Your task to perform on an android device: Clear all items from cart on walmart. Search for "macbook pro 15 inch" on walmart, select the first entry, and add it to the cart. Image 0: 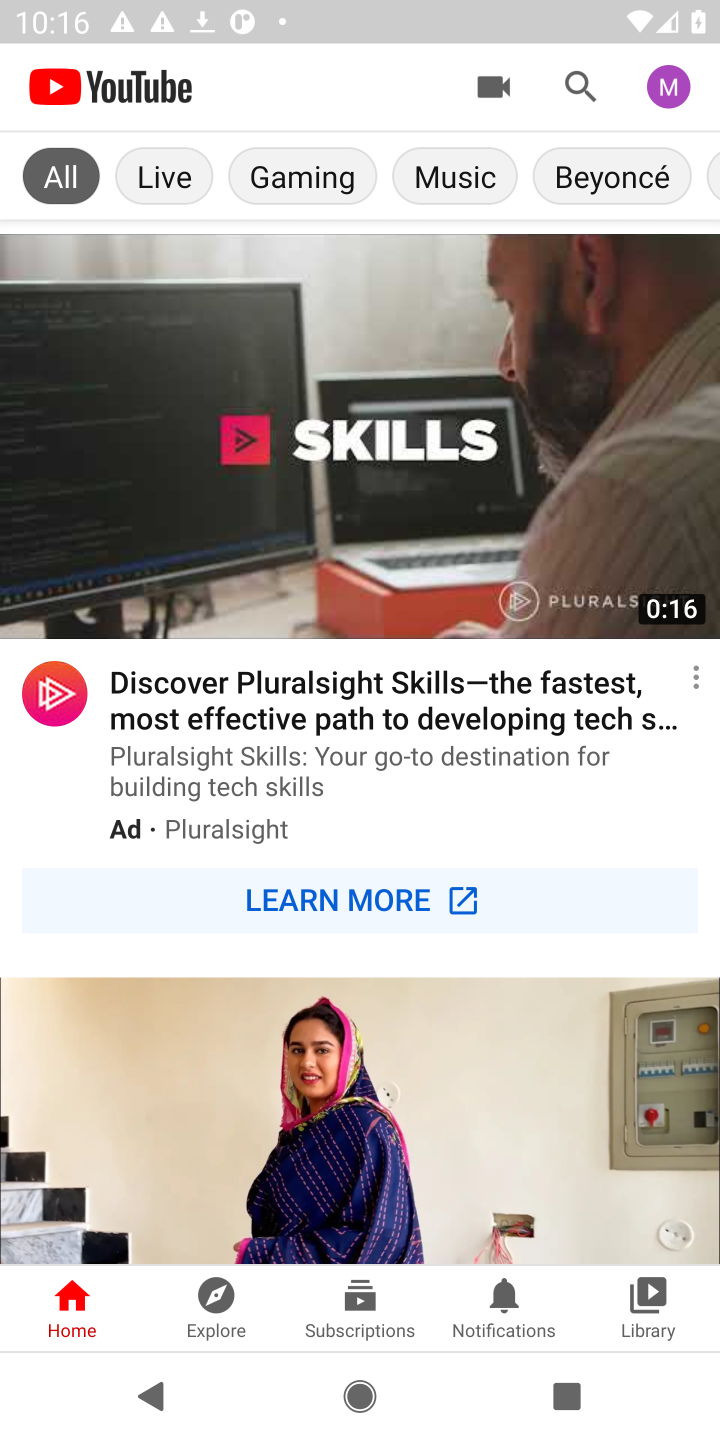
Step 0: press home button
Your task to perform on an android device: Clear all items from cart on walmart. Search for "macbook pro 15 inch" on walmart, select the first entry, and add it to the cart. Image 1: 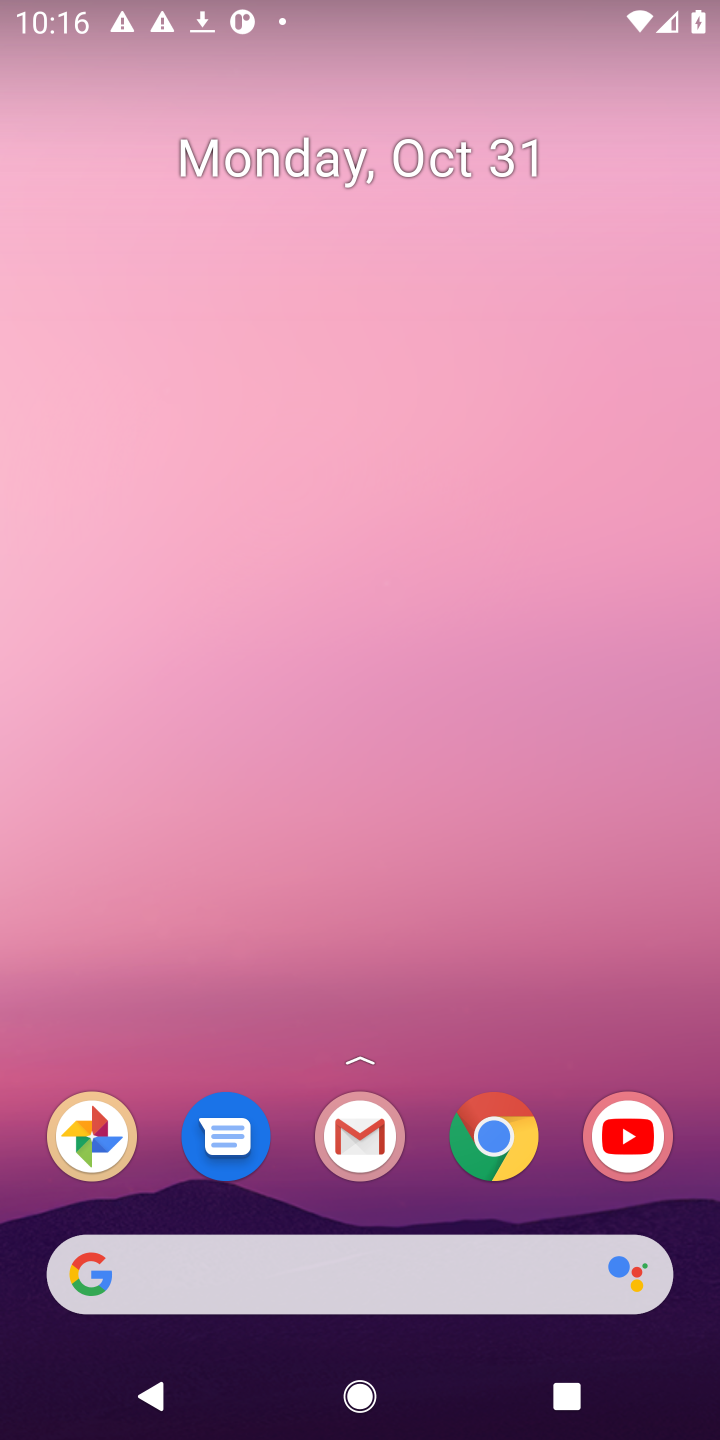
Step 1: click (150, 1278)
Your task to perform on an android device: Clear all items from cart on walmart. Search for "macbook pro 15 inch" on walmart, select the first entry, and add it to the cart. Image 2: 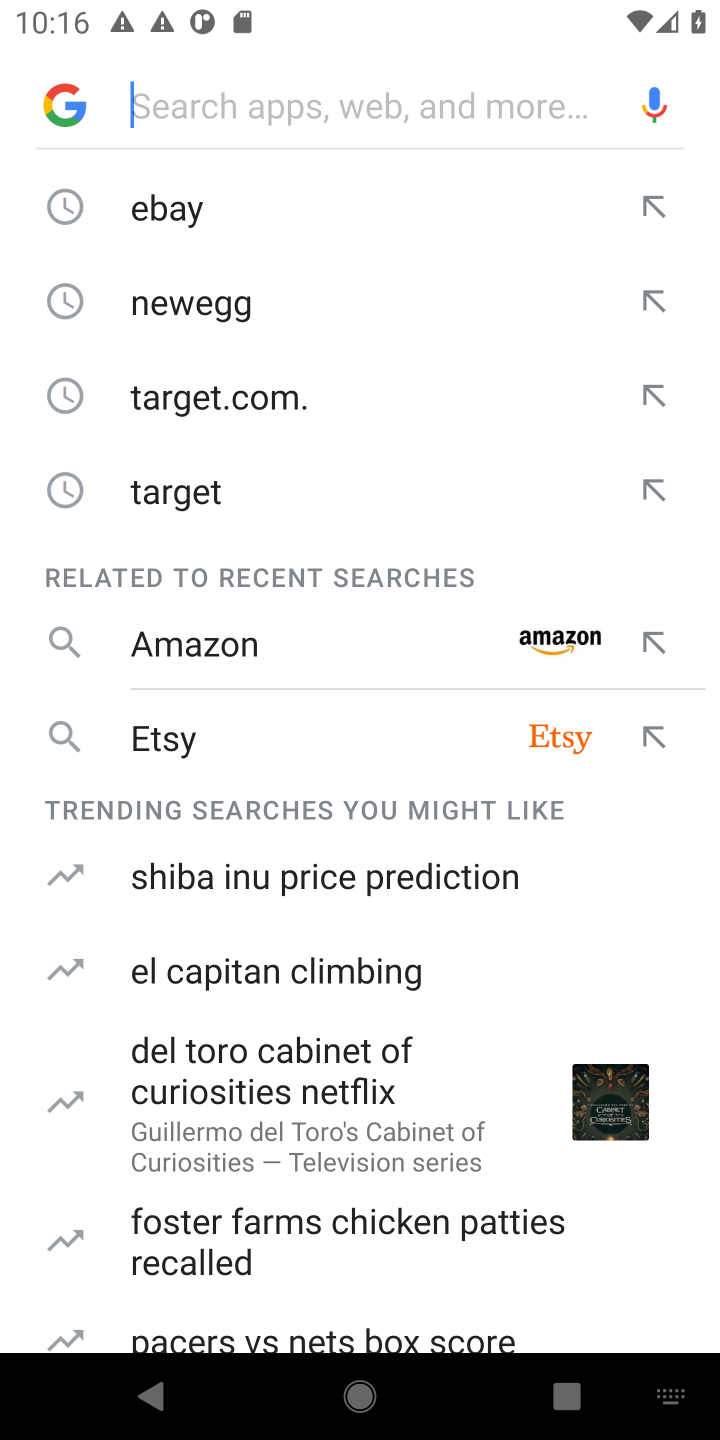
Step 2: type "walmart"
Your task to perform on an android device: Clear all items from cart on walmart. Search for "macbook pro 15 inch" on walmart, select the first entry, and add it to the cart. Image 3: 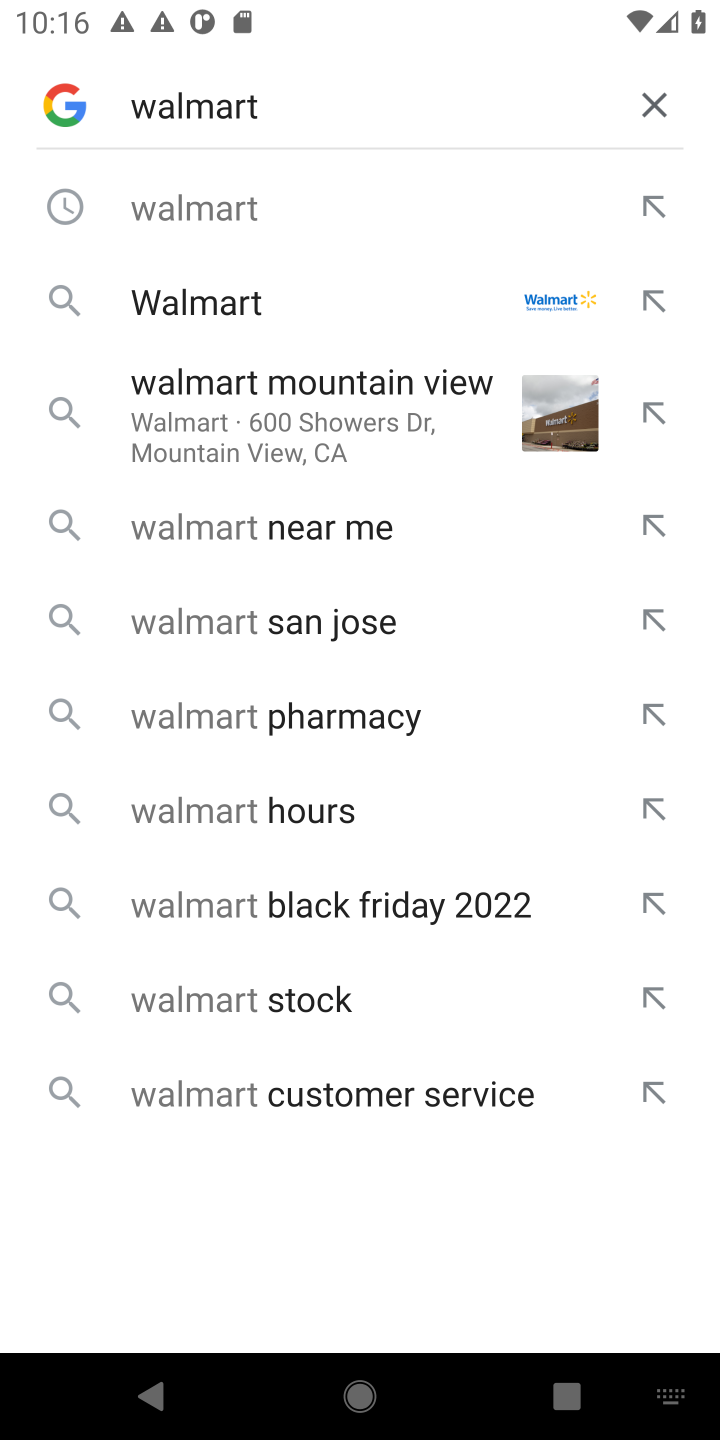
Step 3: press enter
Your task to perform on an android device: Clear all items from cart on walmart. Search for "macbook pro 15 inch" on walmart, select the first entry, and add it to the cart. Image 4: 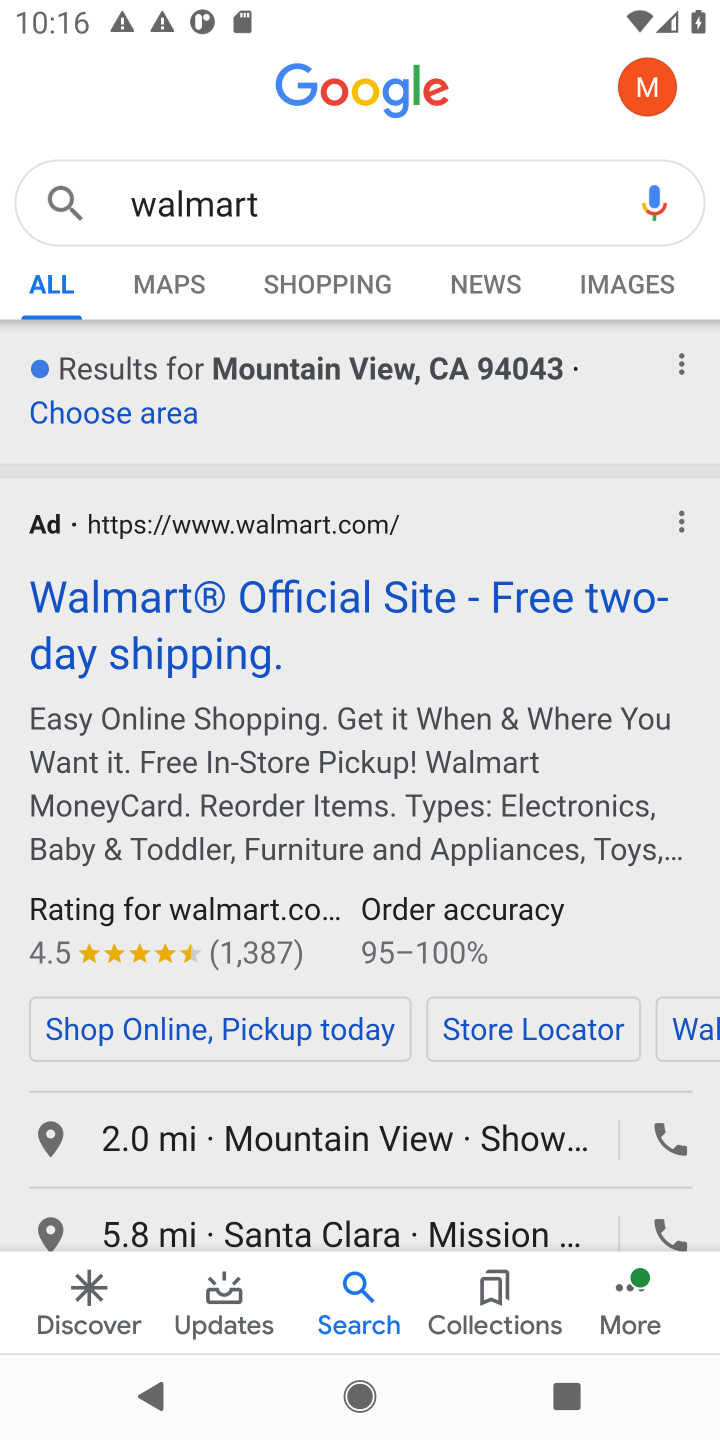
Step 4: click (345, 585)
Your task to perform on an android device: Clear all items from cart on walmart. Search for "macbook pro 15 inch" on walmart, select the first entry, and add it to the cart. Image 5: 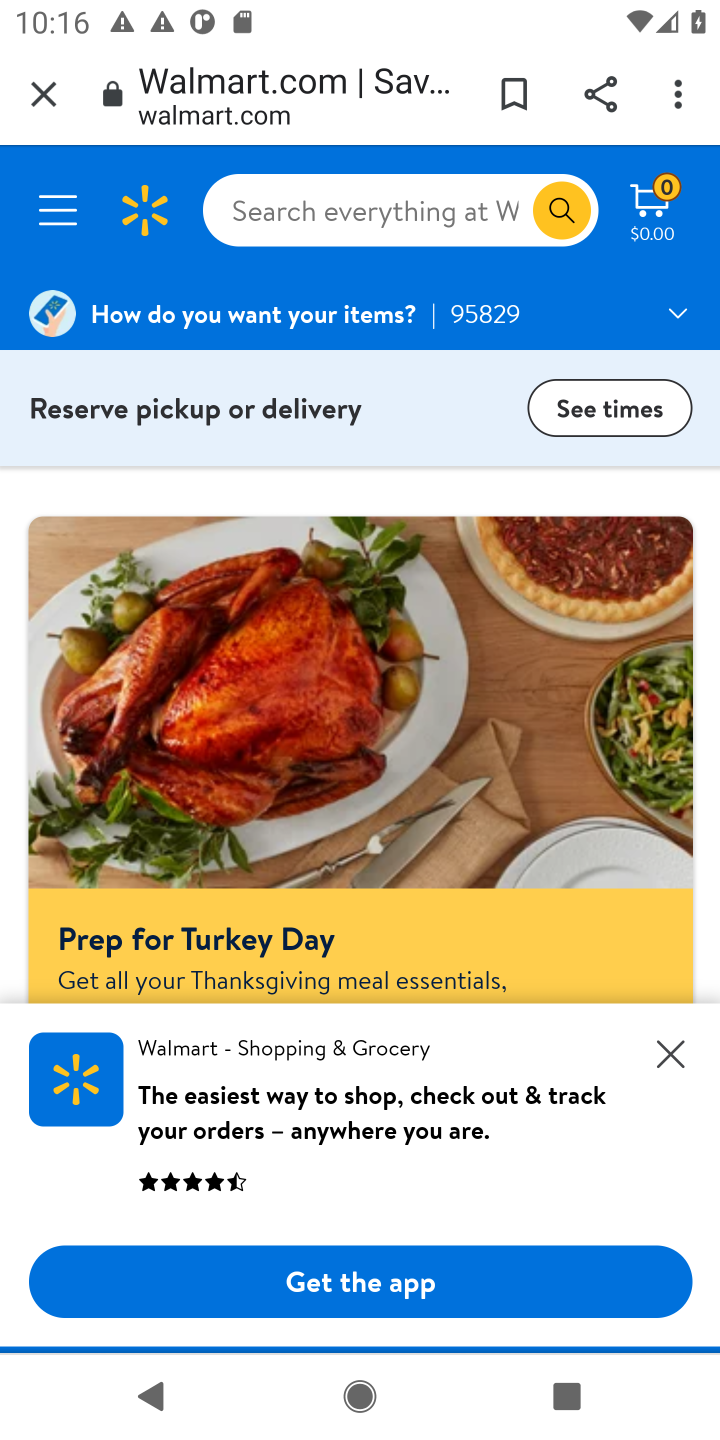
Step 5: click (655, 198)
Your task to perform on an android device: Clear all items from cart on walmart. Search for "macbook pro 15 inch" on walmart, select the first entry, and add it to the cart. Image 6: 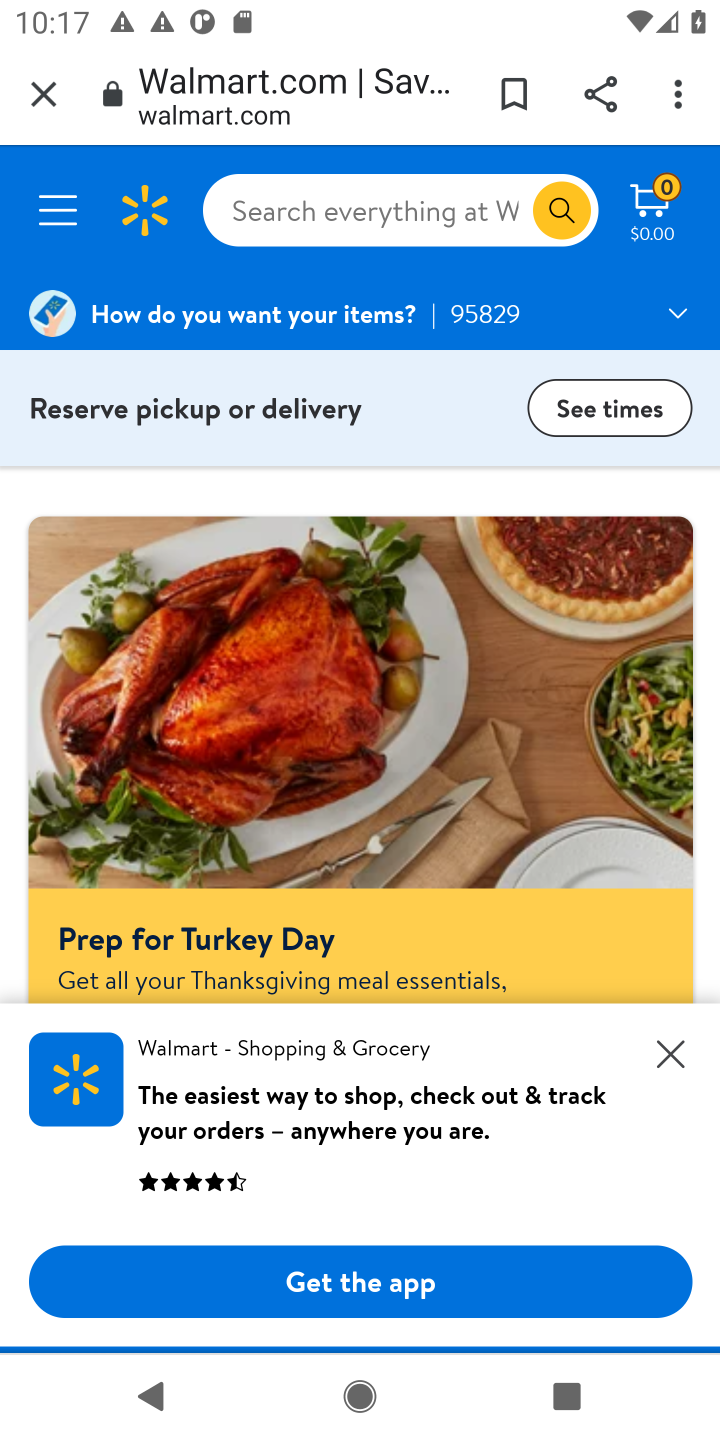
Step 6: click (655, 198)
Your task to perform on an android device: Clear all items from cart on walmart. Search for "macbook pro 15 inch" on walmart, select the first entry, and add it to the cart. Image 7: 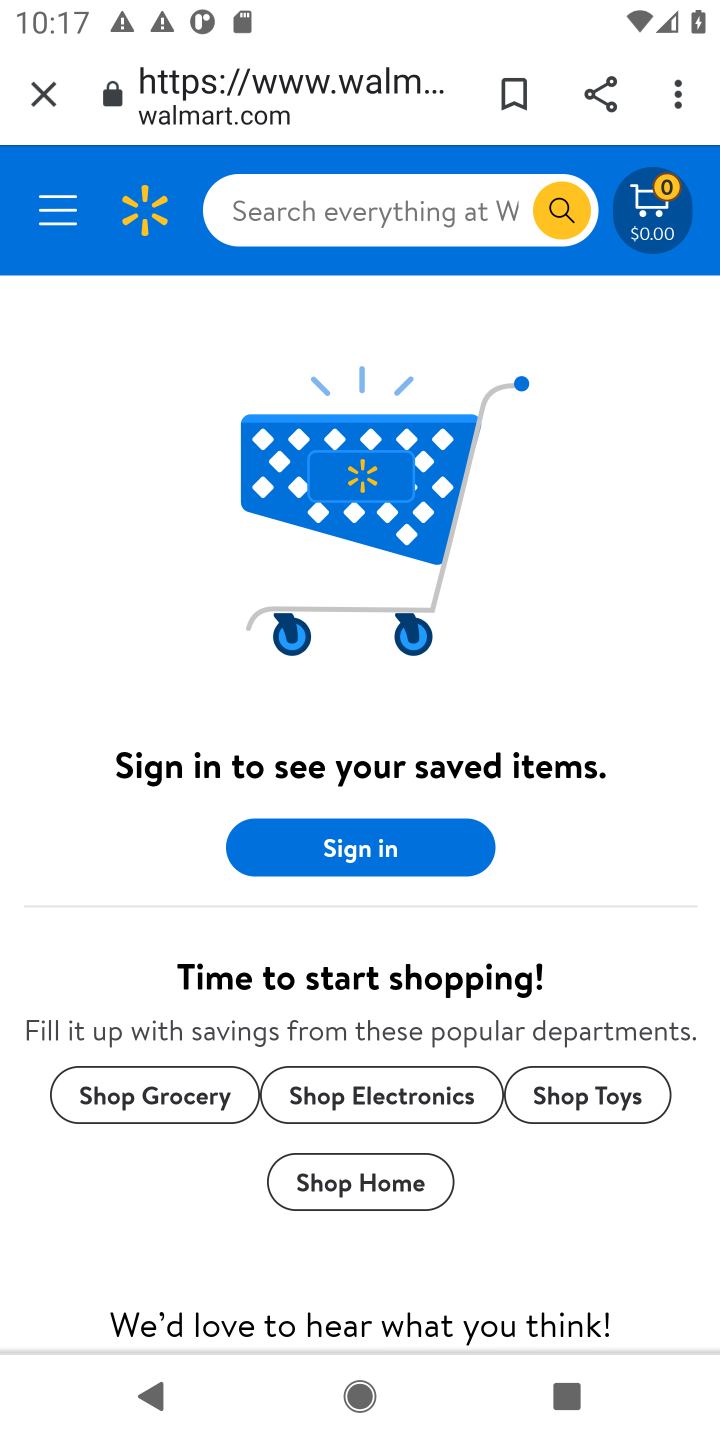
Step 7: click (302, 220)
Your task to perform on an android device: Clear all items from cart on walmart. Search for "macbook pro 15 inch" on walmart, select the first entry, and add it to the cart. Image 8: 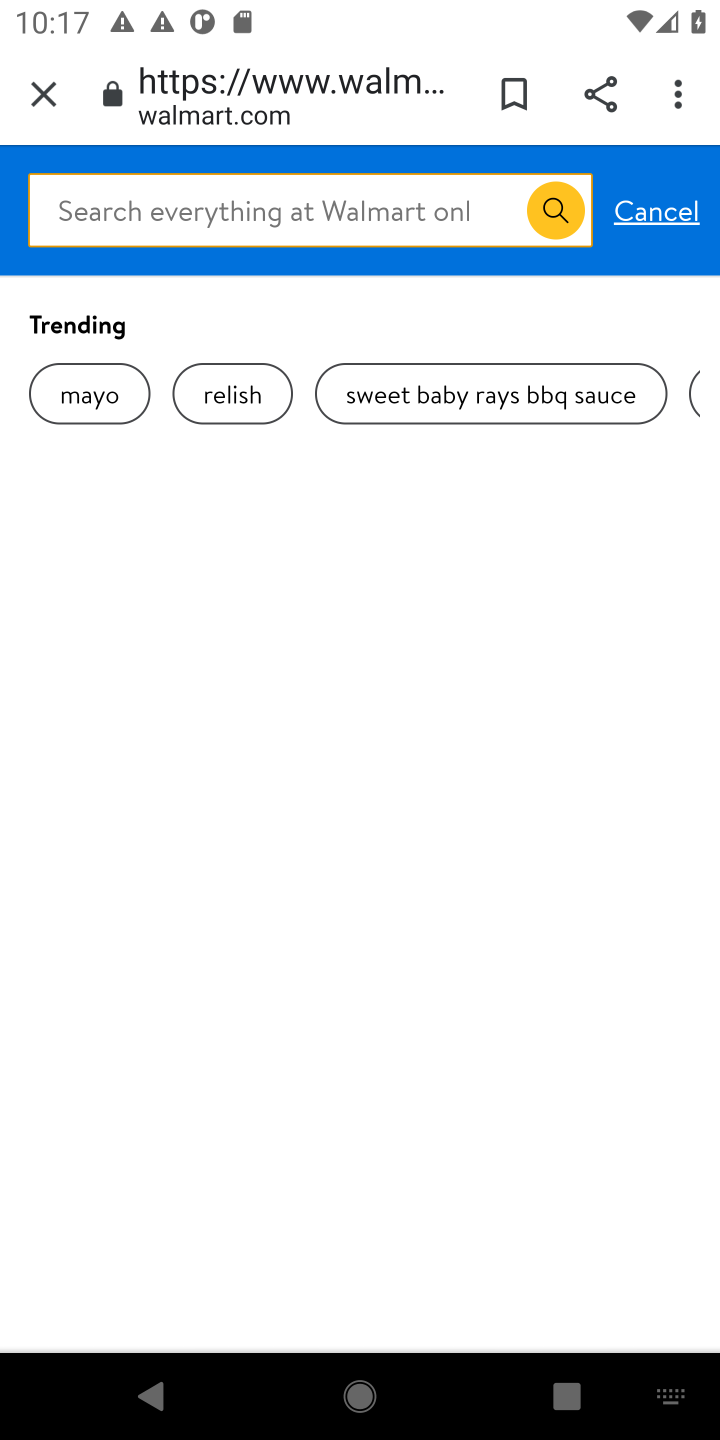
Step 8: type "macbook pro 15 inch"
Your task to perform on an android device: Clear all items from cart on walmart. Search for "macbook pro 15 inch" on walmart, select the first entry, and add it to the cart. Image 9: 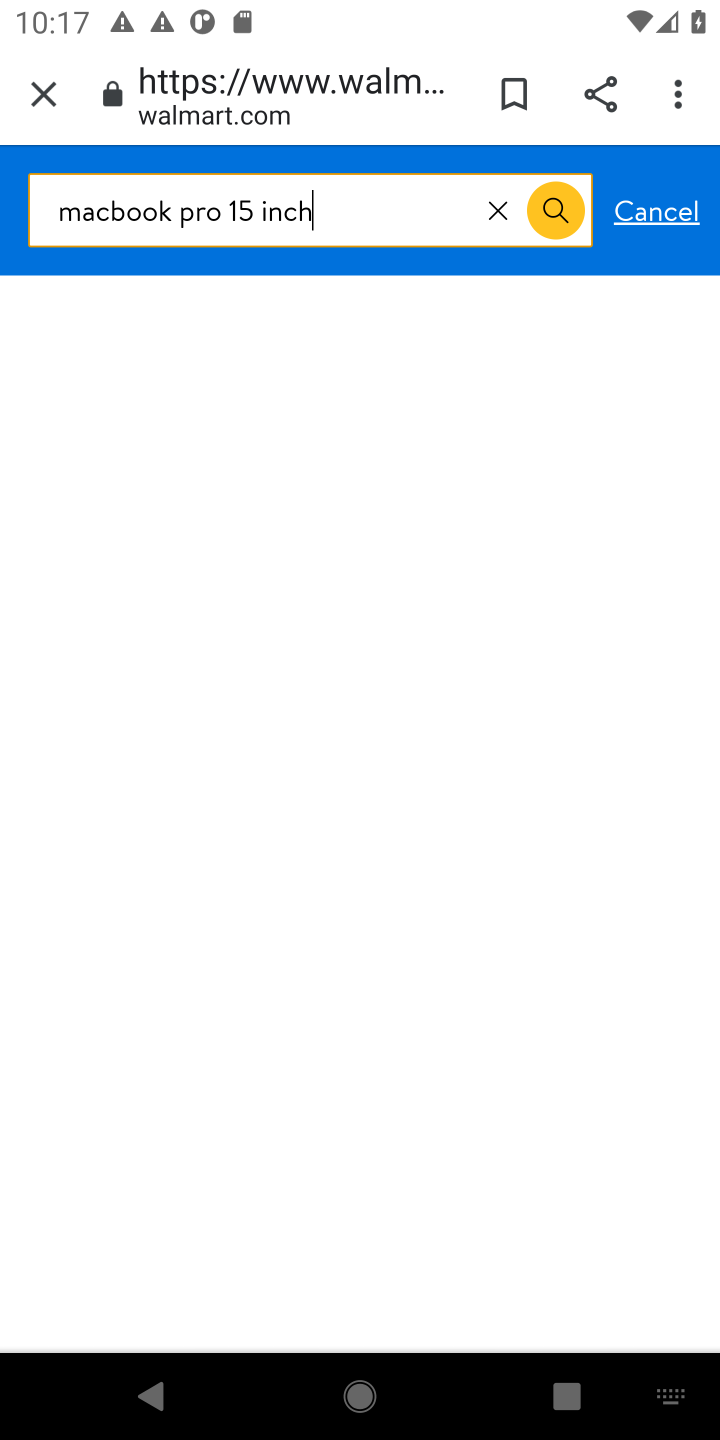
Step 9: press enter
Your task to perform on an android device: Clear all items from cart on walmart. Search for "macbook pro 15 inch" on walmart, select the first entry, and add it to the cart. Image 10: 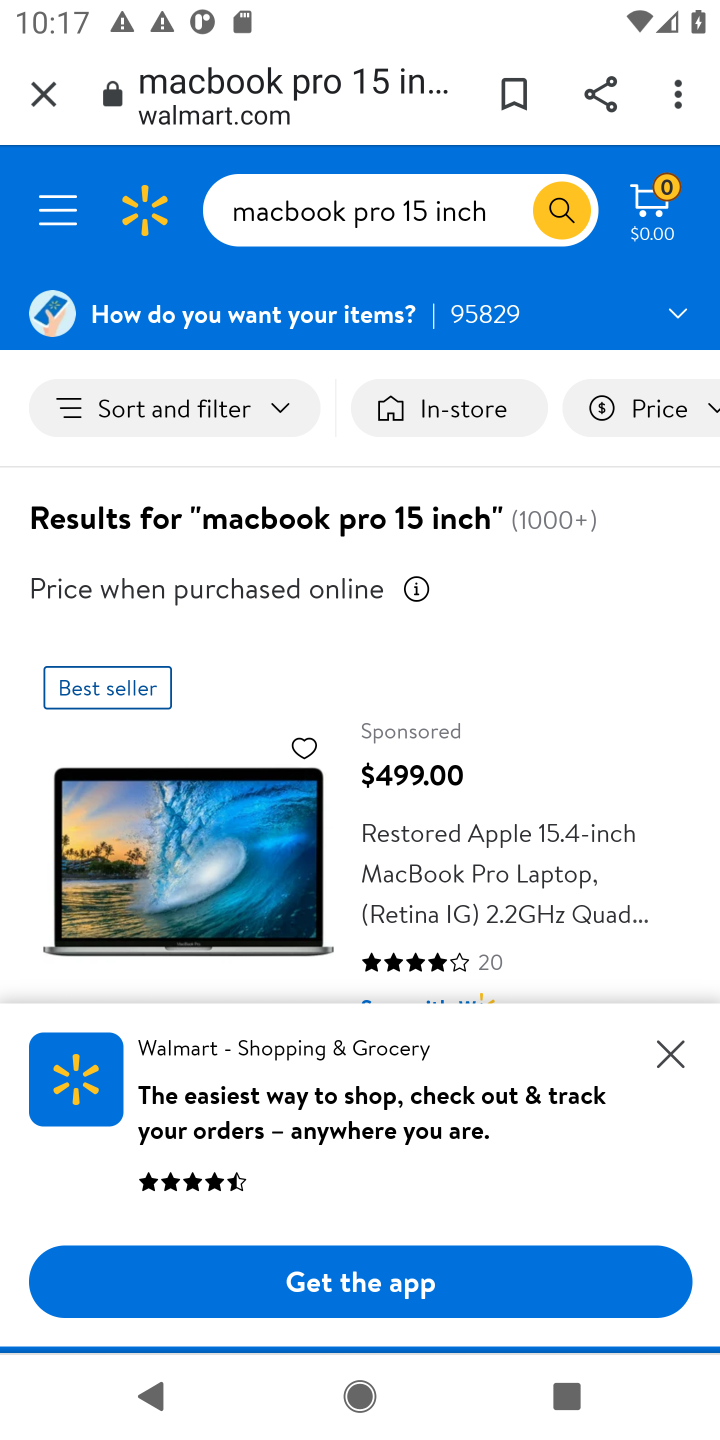
Step 10: click (669, 1049)
Your task to perform on an android device: Clear all items from cart on walmart. Search for "macbook pro 15 inch" on walmart, select the first entry, and add it to the cart. Image 11: 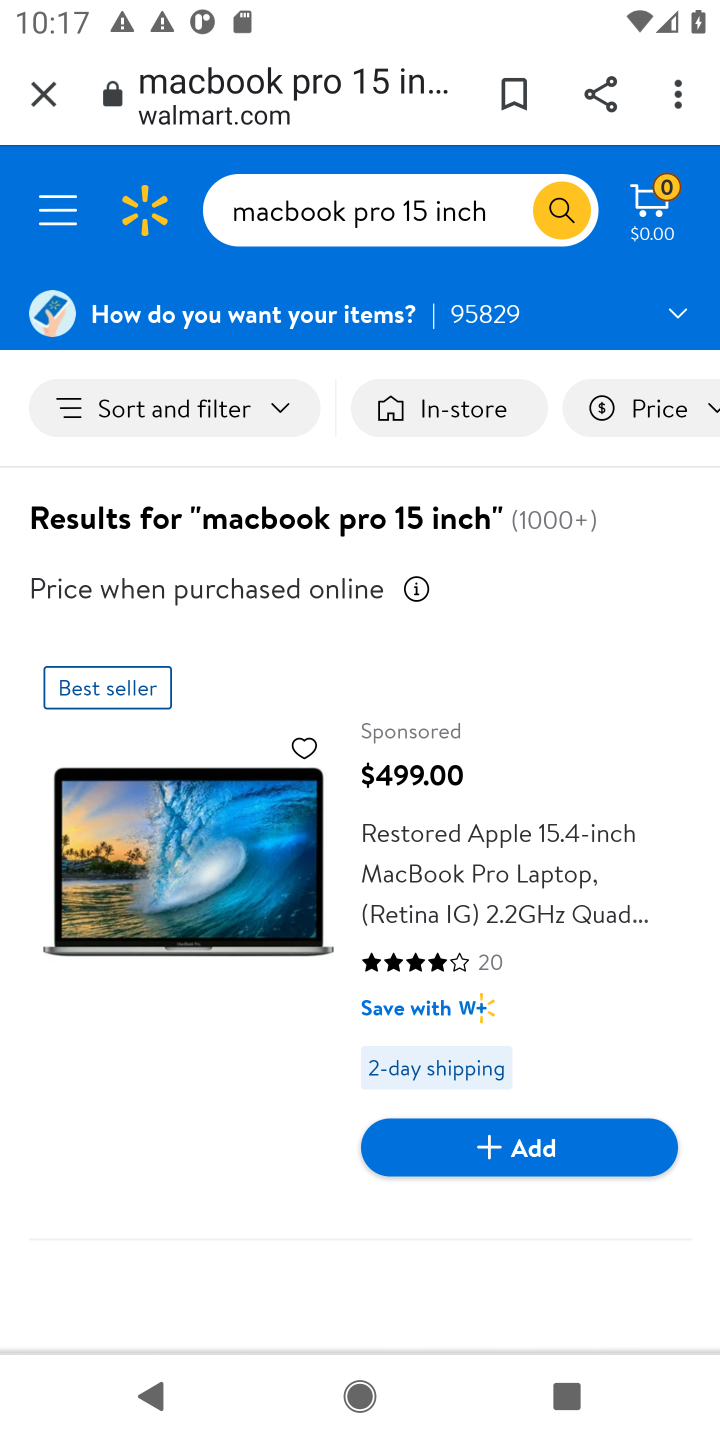
Step 11: drag from (485, 1238) to (493, 579)
Your task to perform on an android device: Clear all items from cart on walmart. Search for "macbook pro 15 inch" on walmart, select the first entry, and add it to the cart. Image 12: 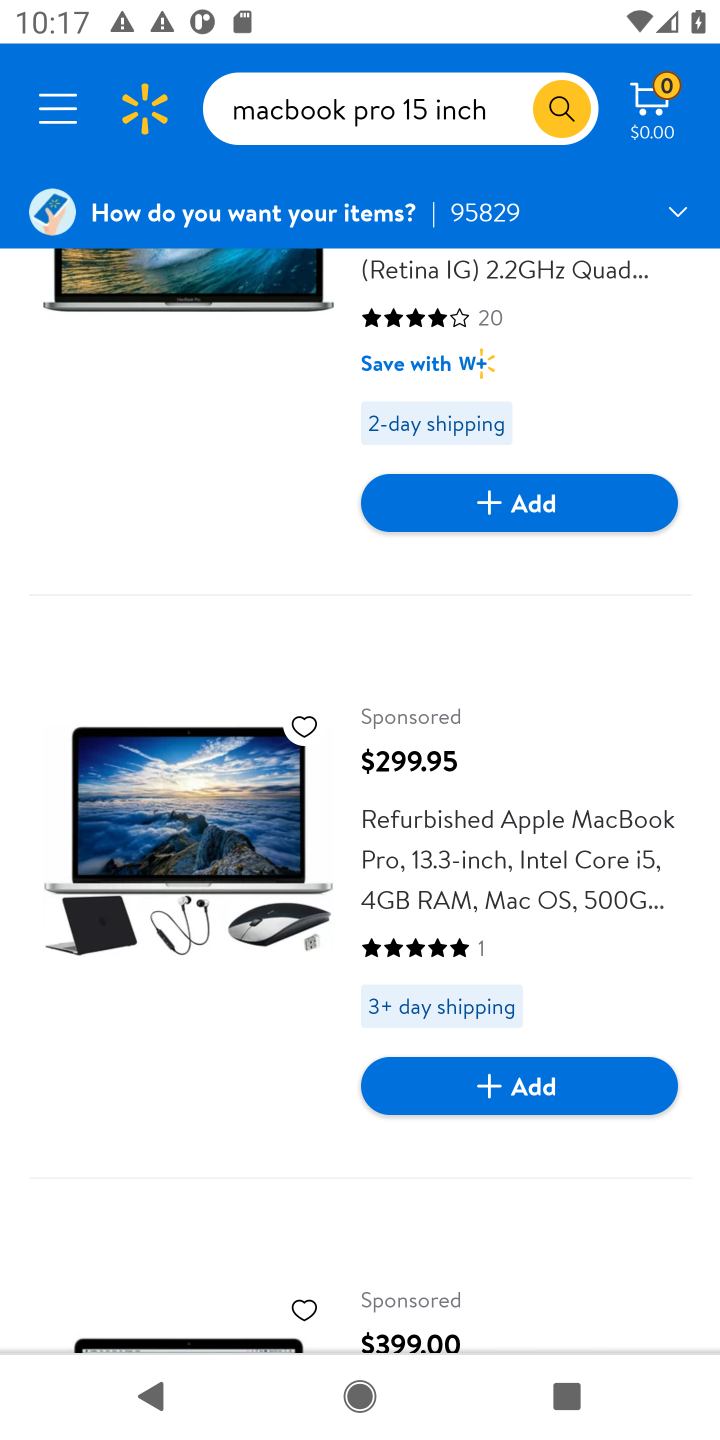
Step 12: drag from (443, 1162) to (518, 716)
Your task to perform on an android device: Clear all items from cart on walmart. Search for "macbook pro 15 inch" on walmart, select the first entry, and add it to the cart. Image 13: 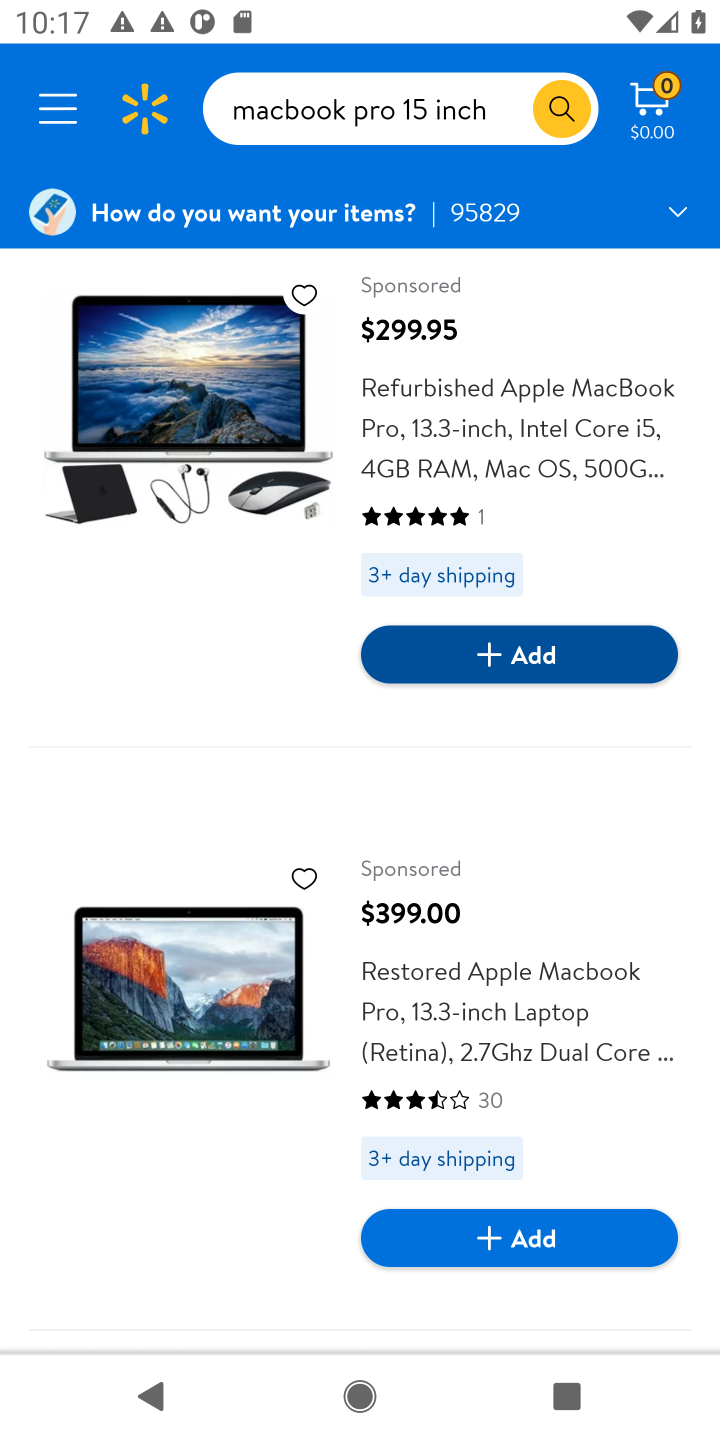
Step 13: drag from (498, 1134) to (541, 730)
Your task to perform on an android device: Clear all items from cart on walmart. Search for "macbook pro 15 inch" on walmart, select the first entry, and add it to the cart. Image 14: 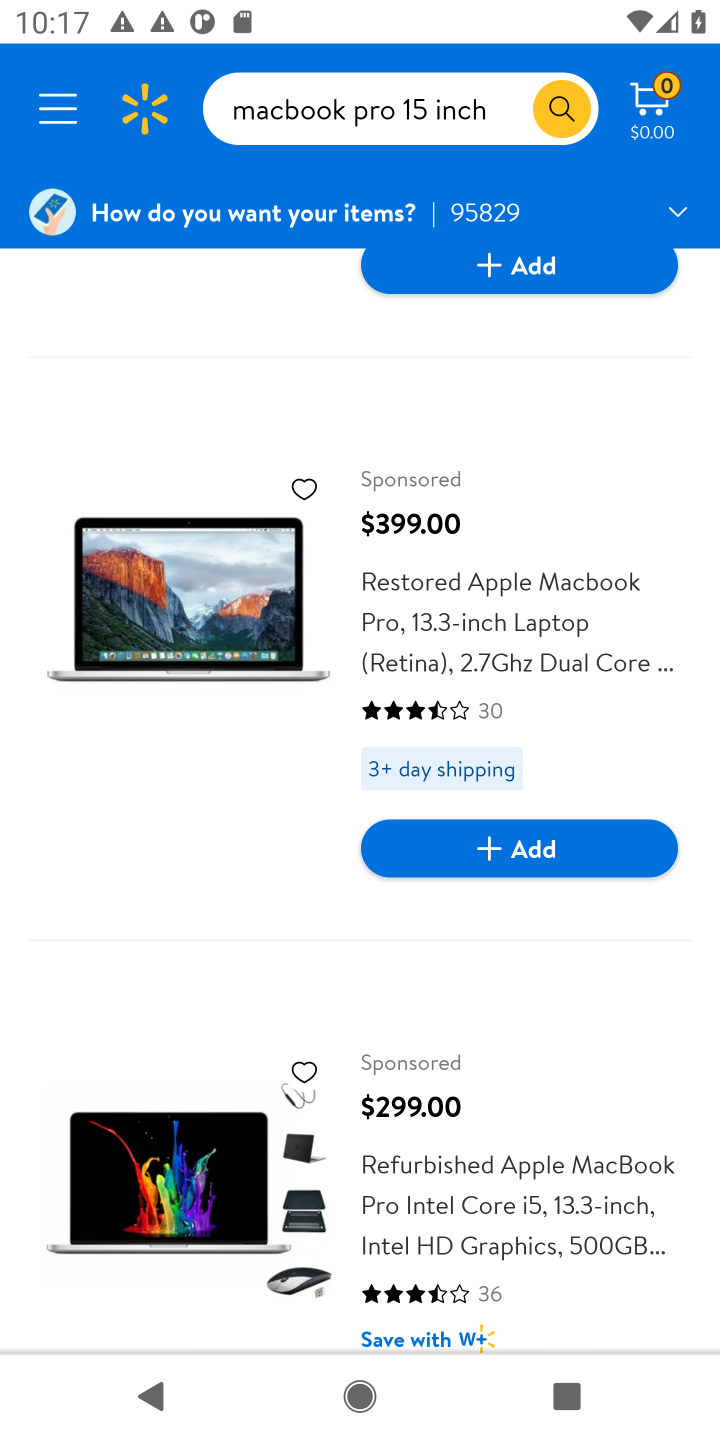
Step 14: drag from (398, 1199) to (427, 692)
Your task to perform on an android device: Clear all items from cart on walmart. Search for "macbook pro 15 inch" on walmart, select the first entry, and add it to the cart. Image 15: 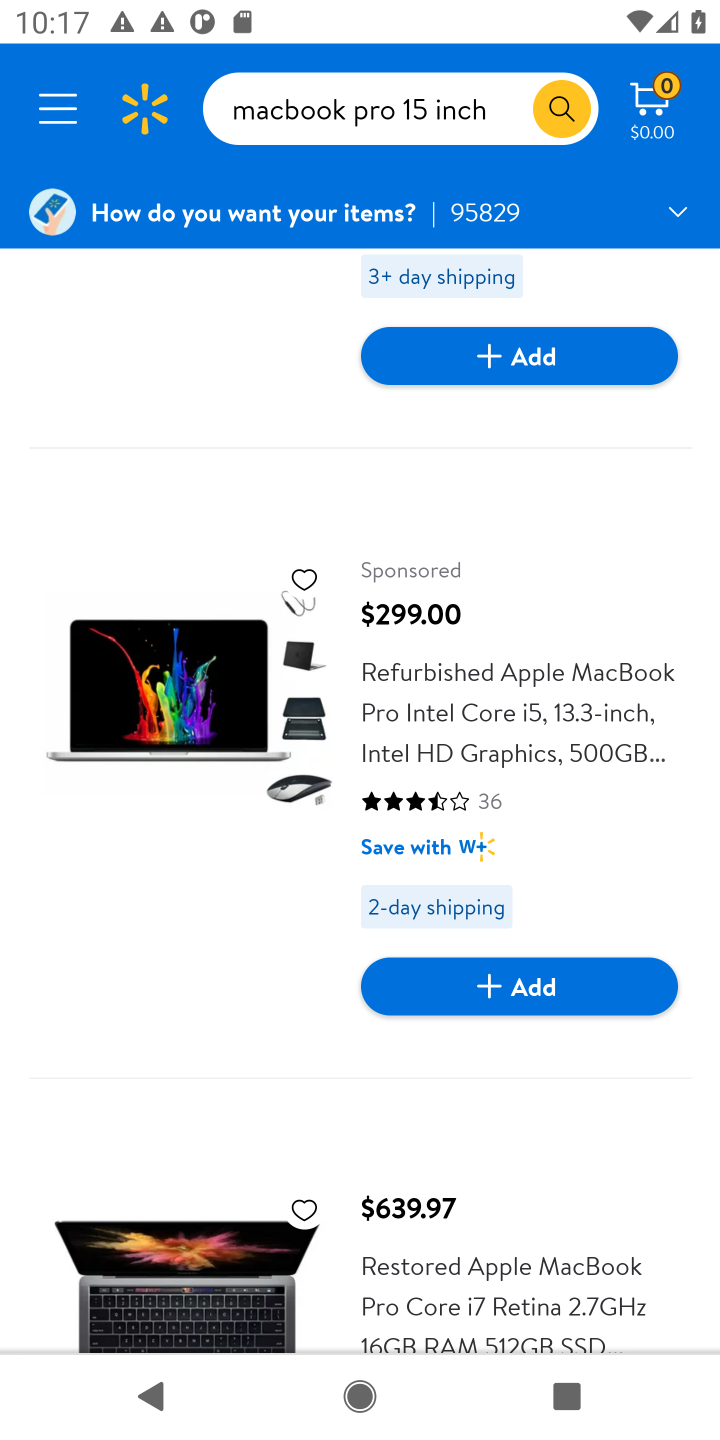
Step 15: drag from (411, 1295) to (452, 677)
Your task to perform on an android device: Clear all items from cart on walmart. Search for "macbook pro 15 inch" on walmart, select the first entry, and add it to the cart. Image 16: 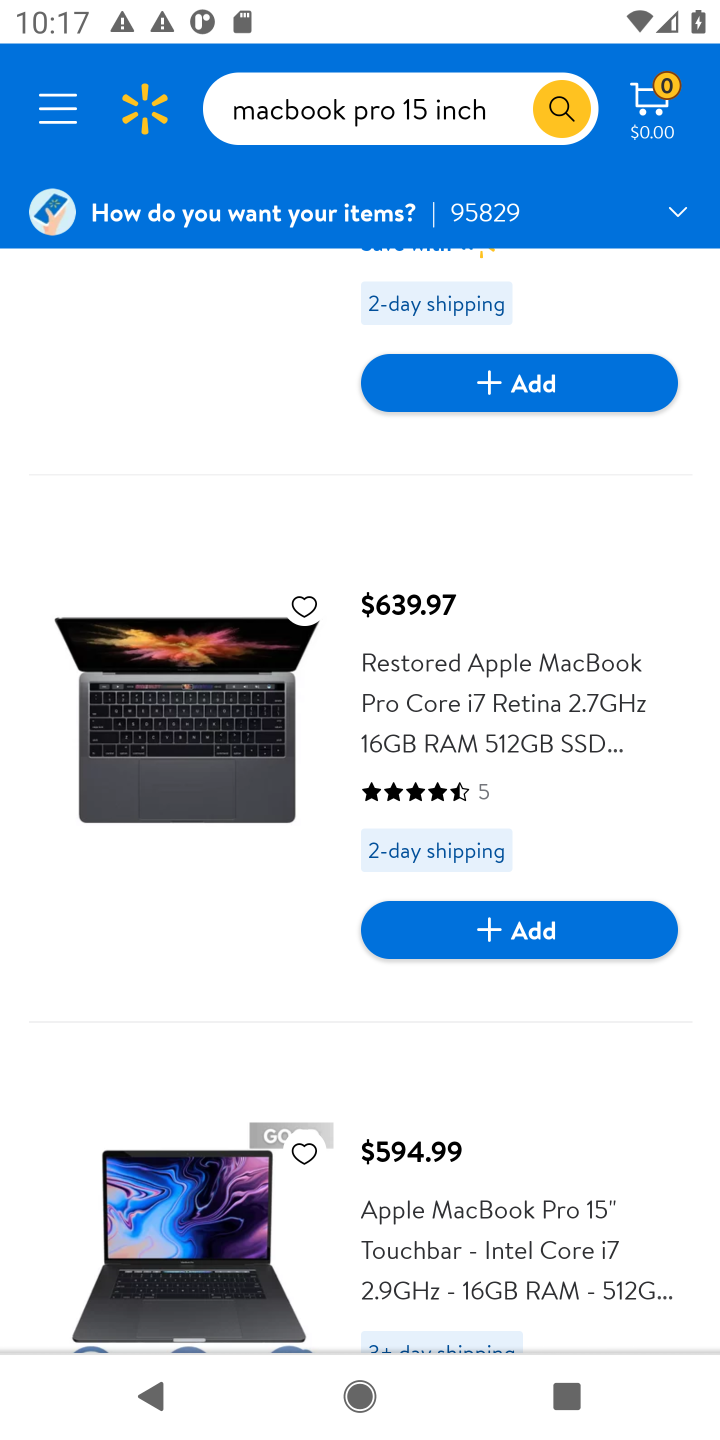
Step 16: click (519, 673)
Your task to perform on an android device: Clear all items from cart on walmart. Search for "macbook pro 15 inch" on walmart, select the first entry, and add it to the cart. Image 17: 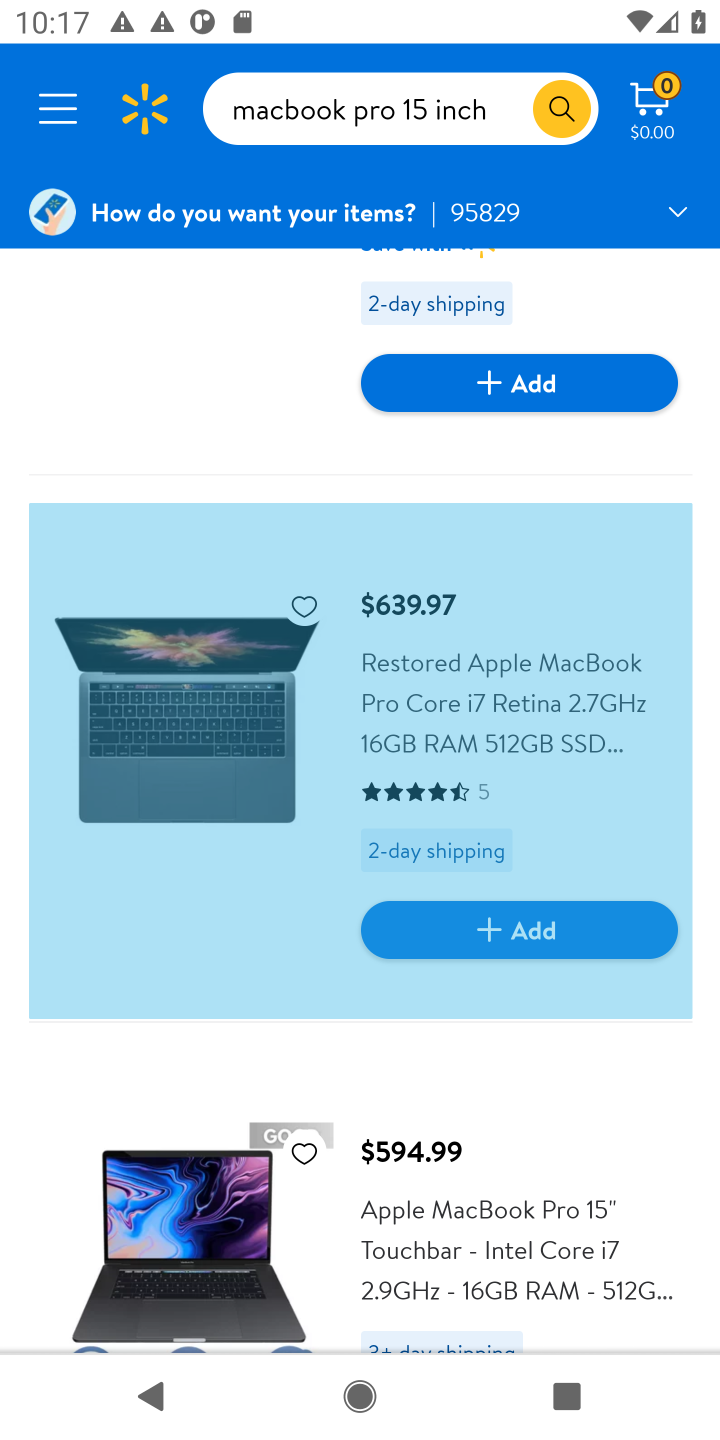
Step 17: click (535, 941)
Your task to perform on an android device: Clear all items from cart on walmart. Search for "macbook pro 15 inch" on walmart, select the first entry, and add it to the cart. Image 18: 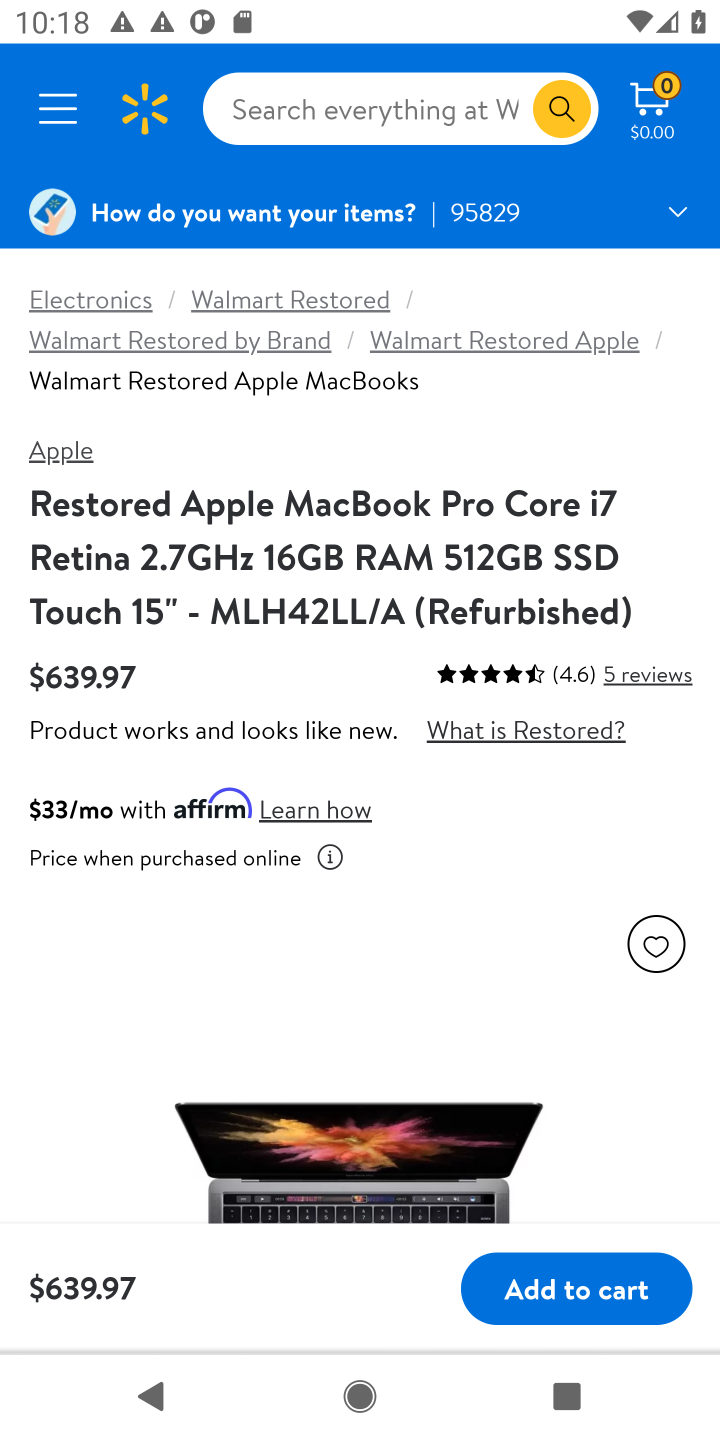
Step 18: click (590, 1290)
Your task to perform on an android device: Clear all items from cart on walmart. Search for "macbook pro 15 inch" on walmart, select the first entry, and add it to the cart. Image 19: 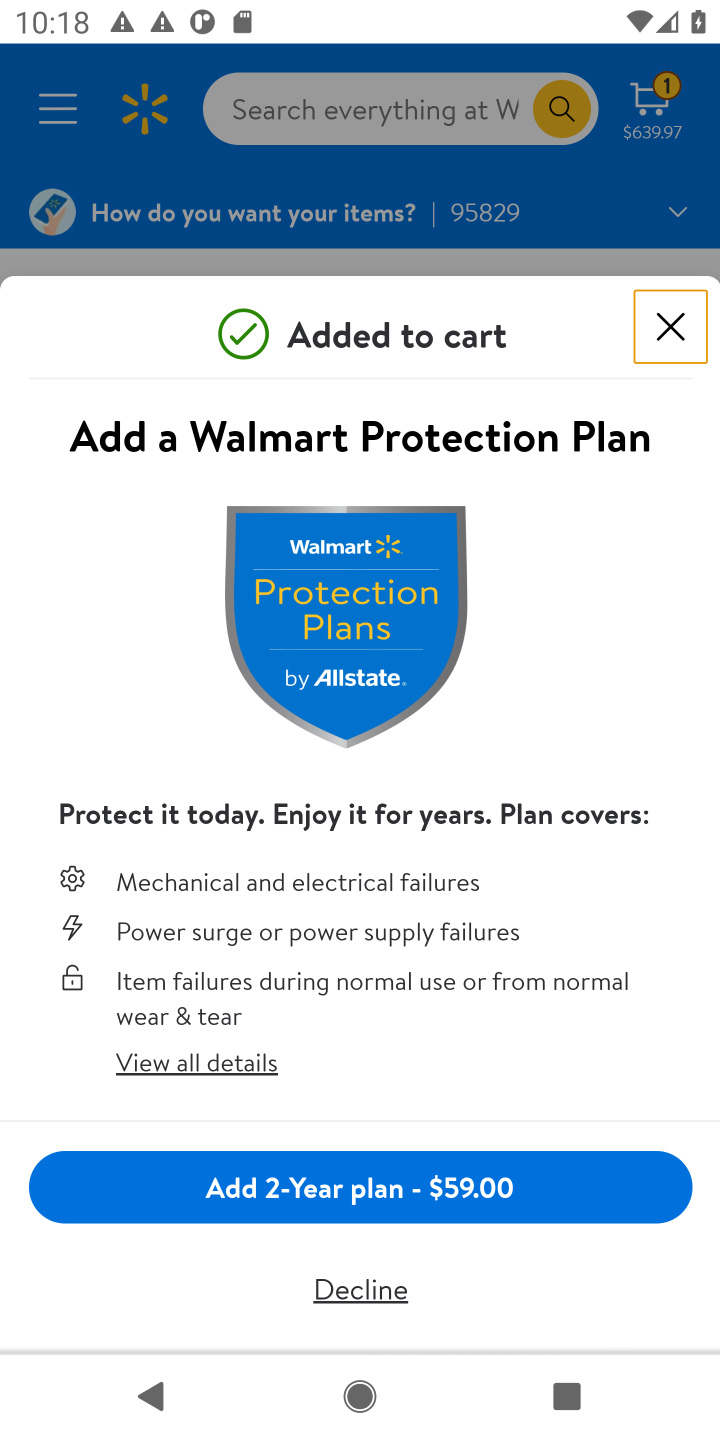
Step 19: click (429, 1184)
Your task to perform on an android device: Clear all items from cart on walmart. Search for "macbook pro 15 inch" on walmart, select the first entry, and add it to the cart. Image 20: 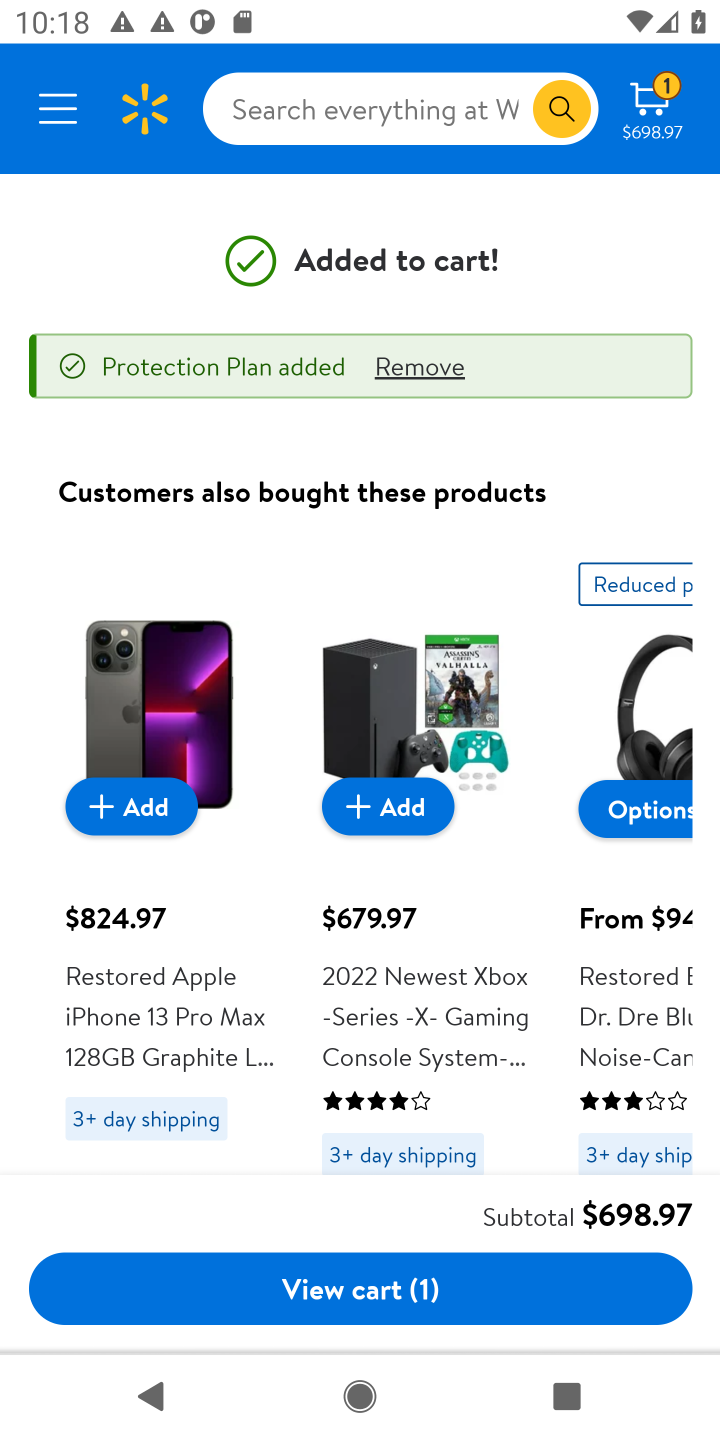
Step 20: task complete